Your task to perform on an android device: turn on bluetooth scan Image 0: 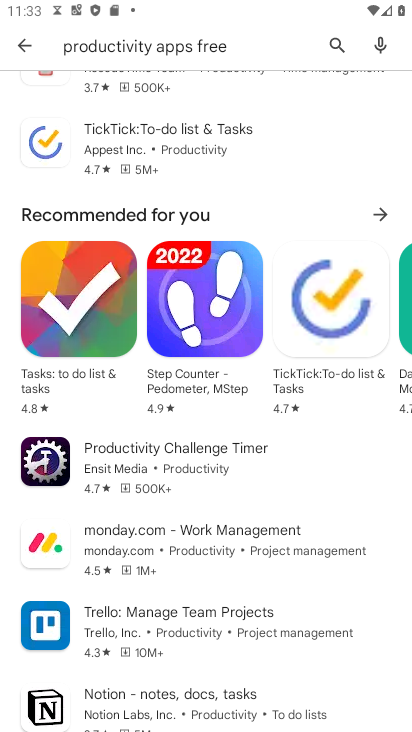
Step 0: drag from (196, 565) to (226, 42)
Your task to perform on an android device: turn on bluetooth scan Image 1: 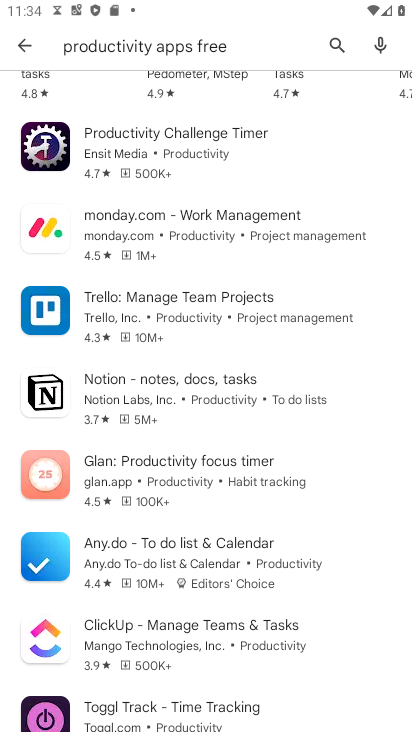
Step 1: press home button
Your task to perform on an android device: turn on bluetooth scan Image 2: 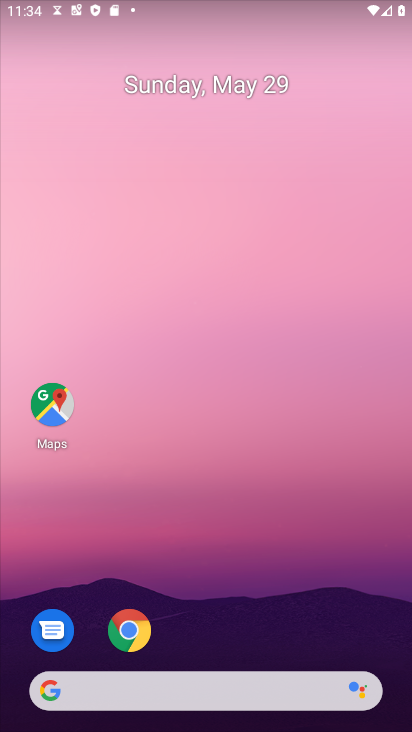
Step 2: drag from (228, 523) to (275, 0)
Your task to perform on an android device: turn on bluetooth scan Image 3: 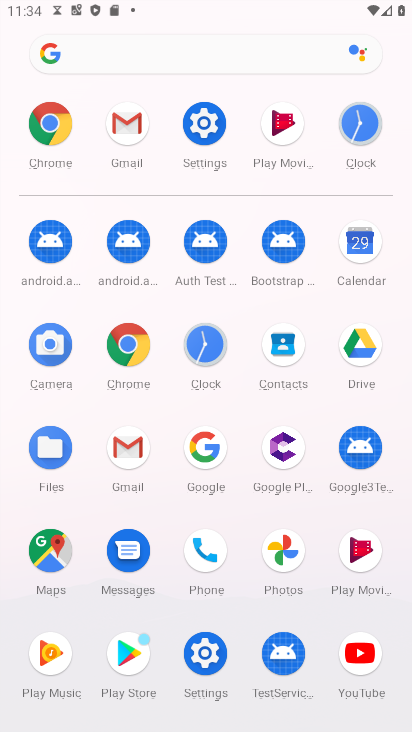
Step 3: click (198, 143)
Your task to perform on an android device: turn on bluetooth scan Image 4: 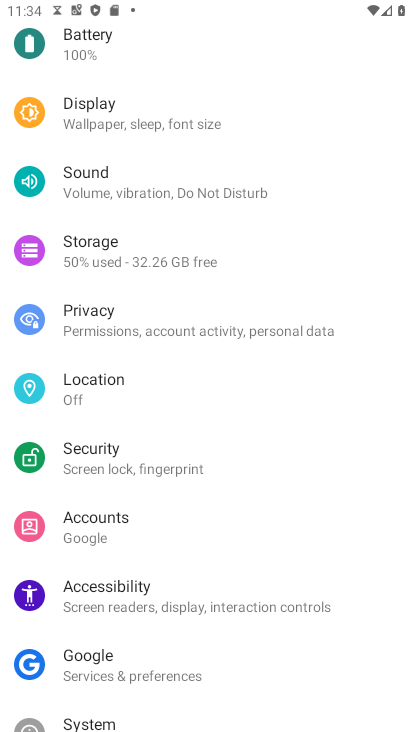
Step 4: drag from (214, 110) to (240, 488)
Your task to perform on an android device: turn on bluetooth scan Image 5: 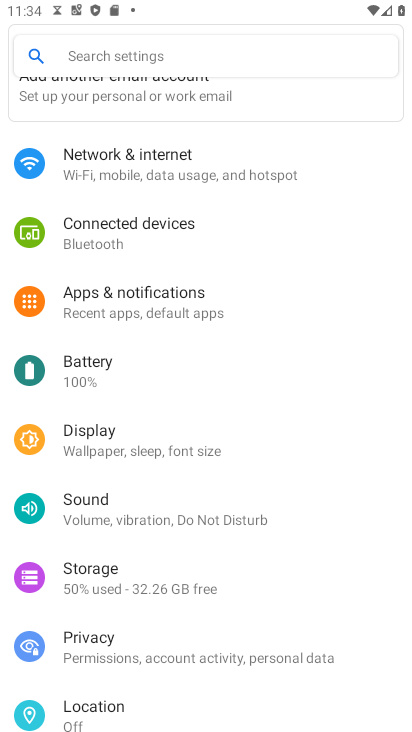
Step 5: click (242, 176)
Your task to perform on an android device: turn on bluetooth scan Image 6: 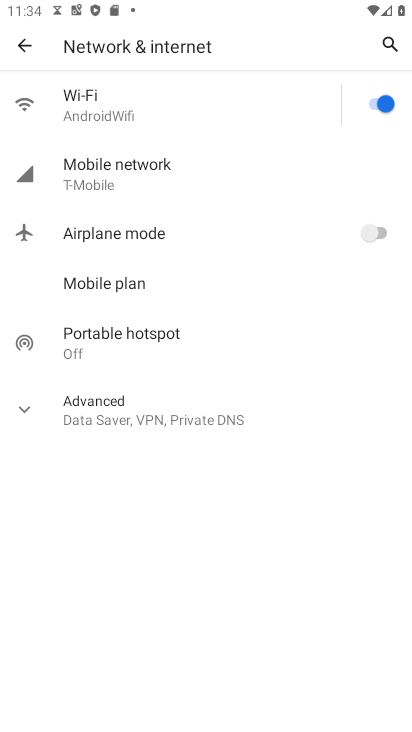
Step 6: click (145, 402)
Your task to perform on an android device: turn on bluetooth scan Image 7: 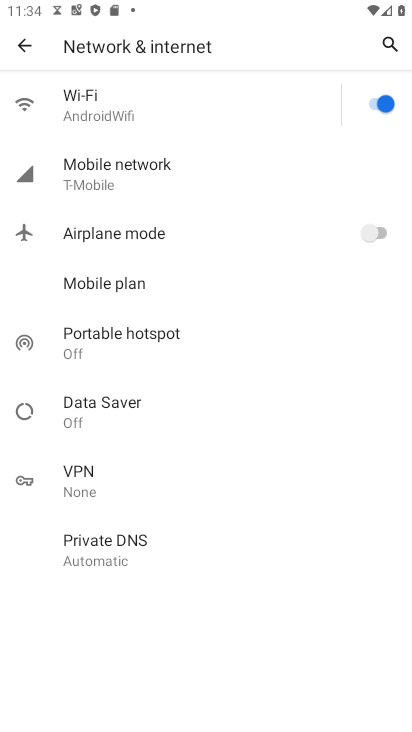
Step 7: press back button
Your task to perform on an android device: turn on bluetooth scan Image 8: 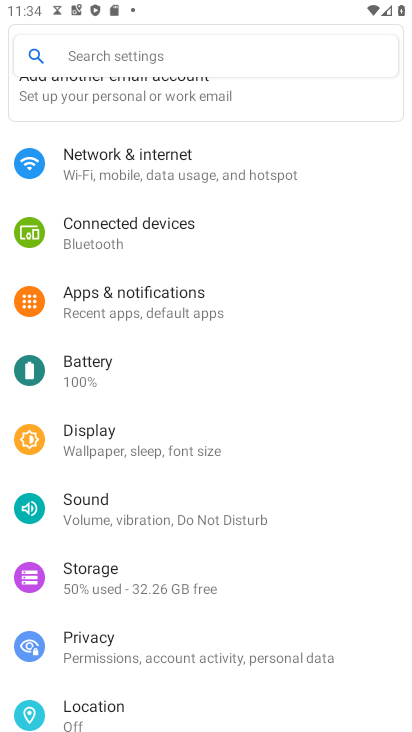
Step 8: drag from (355, 0) to (359, 484)
Your task to perform on an android device: turn on bluetooth scan Image 9: 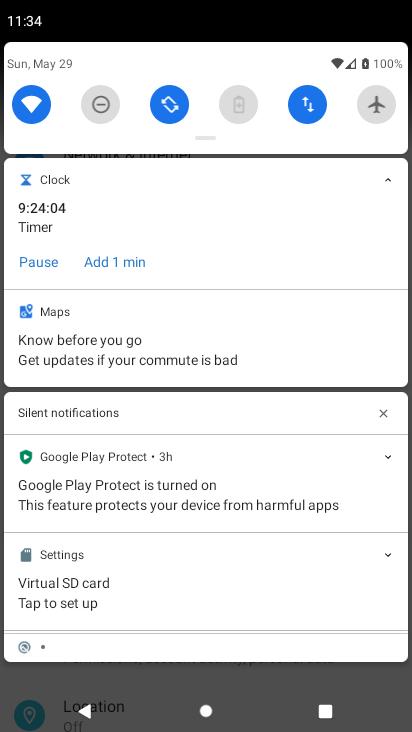
Step 9: drag from (250, 99) to (228, 694)
Your task to perform on an android device: turn on bluetooth scan Image 10: 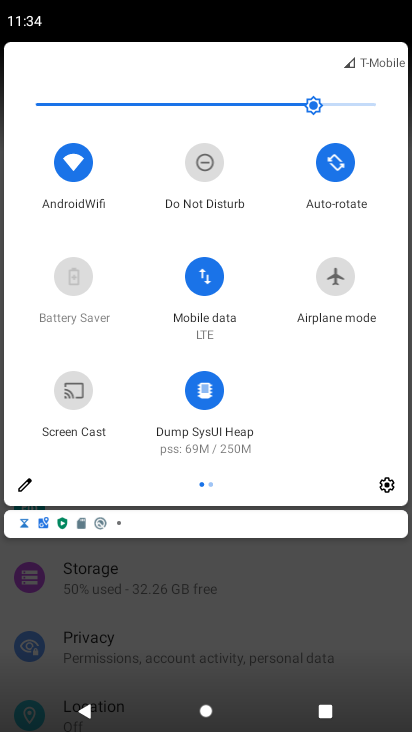
Step 10: drag from (304, 357) to (229, 341)
Your task to perform on an android device: turn on bluetooth scan Image 11: 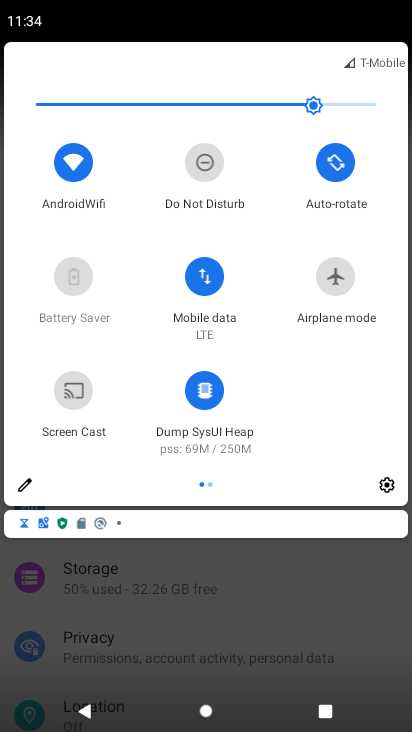
Step 11: drag from (345, 373) to (225, 392)
Your task to perform on an android device: turn on bluetooth scan Image 12: 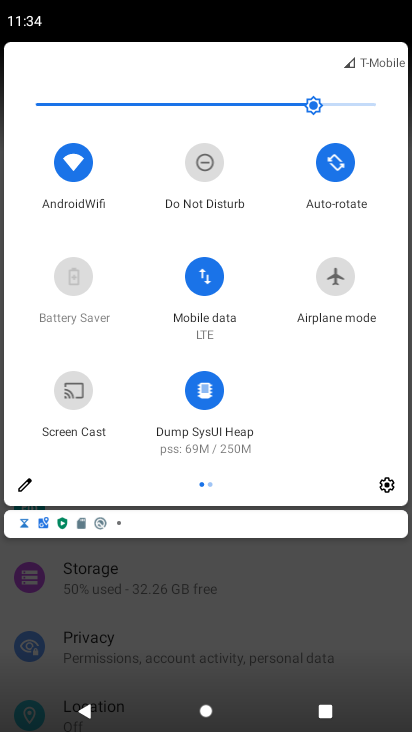
Step 12: drag from (312, 364) to (68, 278)
Your task to perform on an android device: turn on bluetooth scan Image 13: 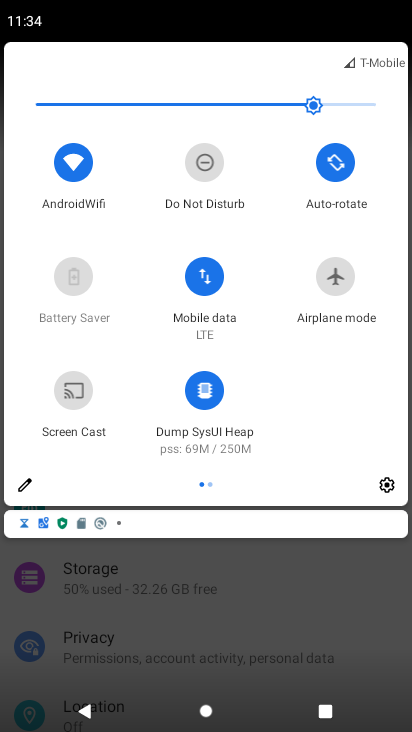
Step 13: drag from (321, 351) to (27, 332)
Your task to perform on an android device: turn on bluetooth scan Image 14: 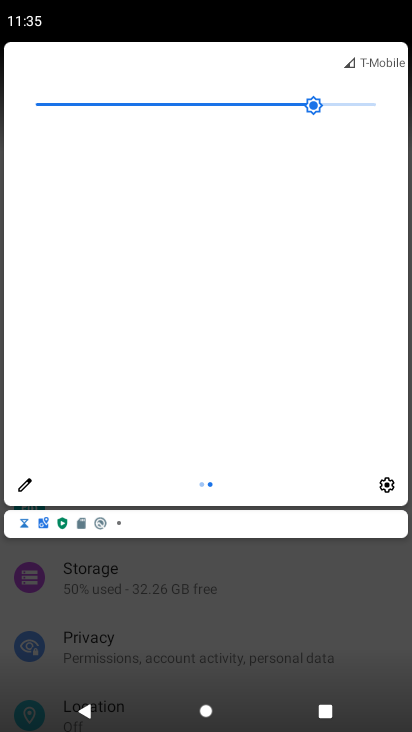
Step 14: drag from (213, 656) to (270, 5)
Your task to perform on an android device: turn on bluetooth scan Image 15: 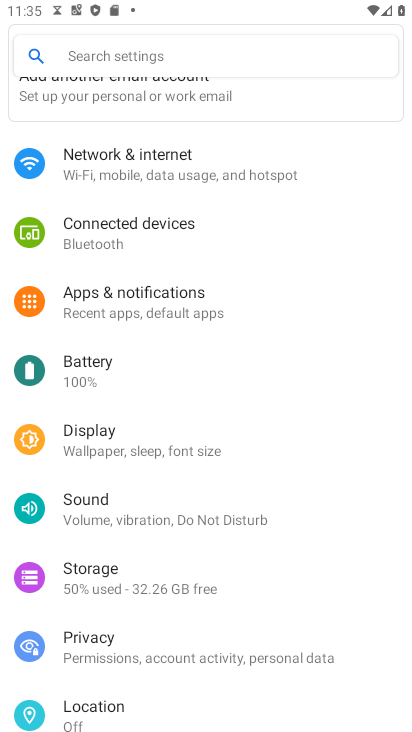
Step 15: click (170, 183)
Your task to perform on an android device: turn on bluetooth scan Image 16: 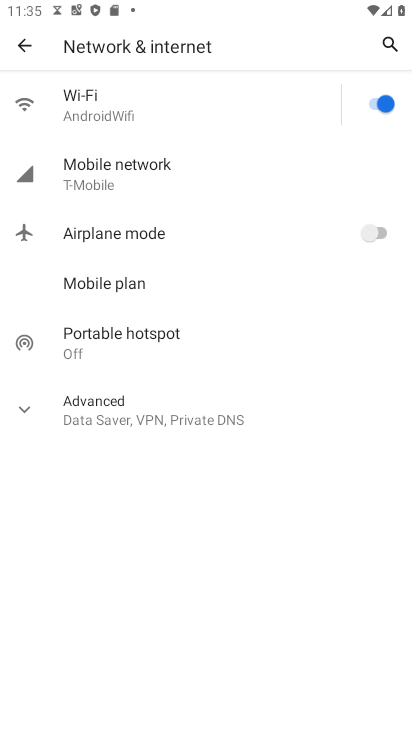
Step 16: task complete